Your task to perform on an android device: Open CNN.com Image 0: 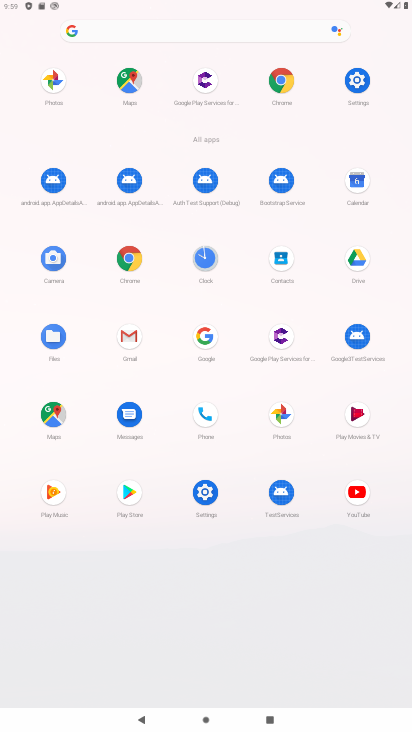
Step 0: press home button
Your task to perform on an android device: Open CNN.com Image 1: 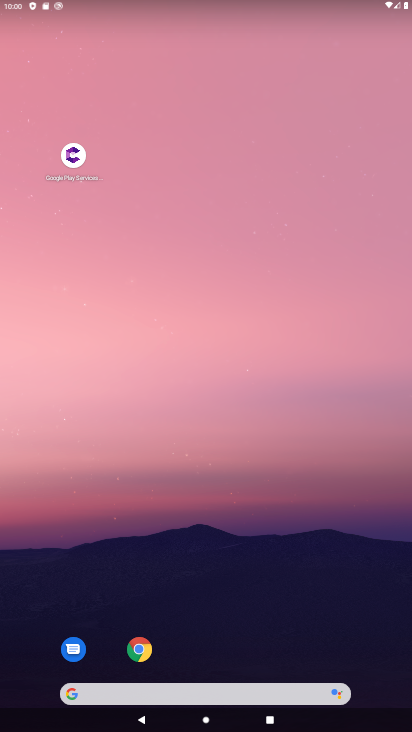
Step 1: click (68, 697)
Your task to perform on an android device: Open CNN.com Image 2: 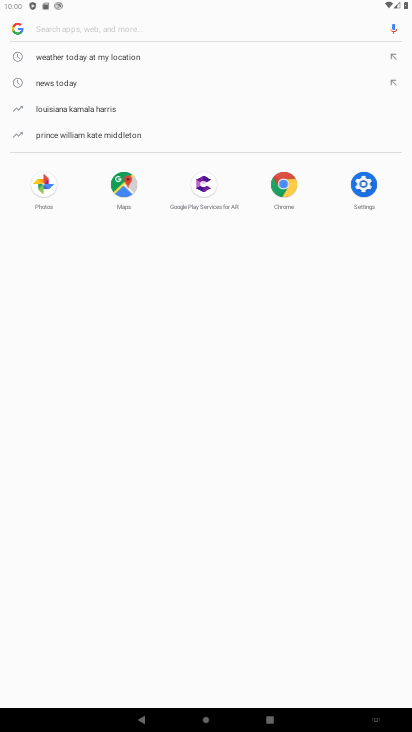
Step 2: type "CNN.com"
Your task to perform on an android device: Open CNN.com Image 3: 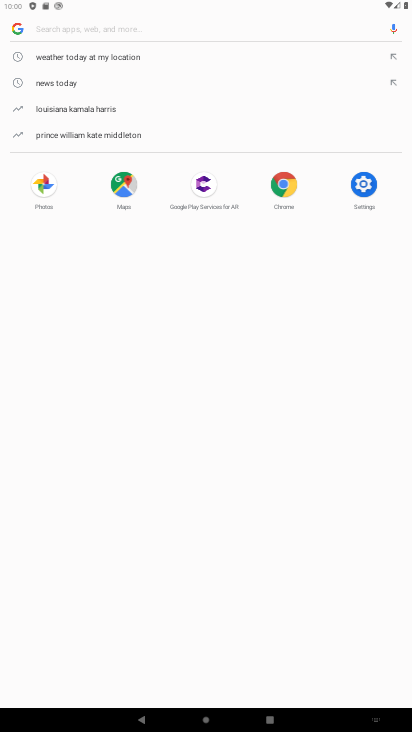
Step 3: click (142, 29)
Your task to perform on an android device: Open CNN.com Image 4: 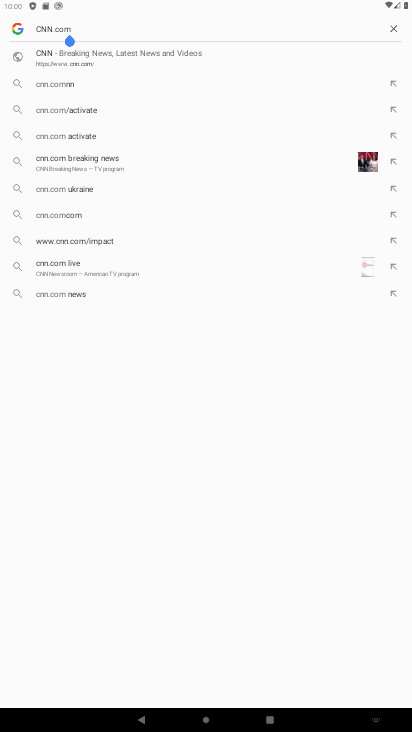
Step 4: click (43, 60)
Your task to perform on an android device: Open CNN.com Image 5: 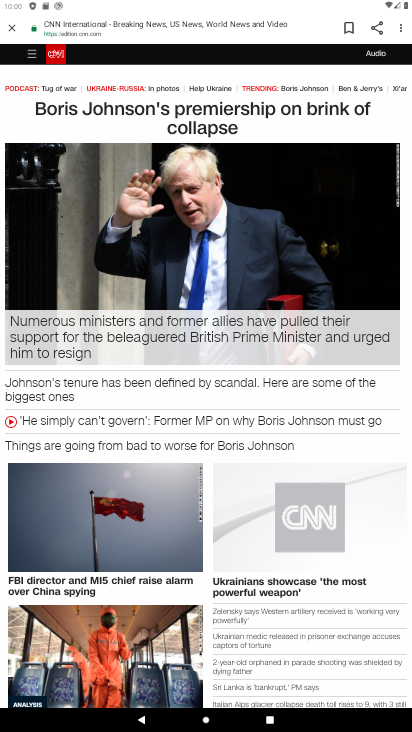
Step 5: task complete